Your task to perform on an android device: Search for seafood restaurants on Google Maps Image 0: 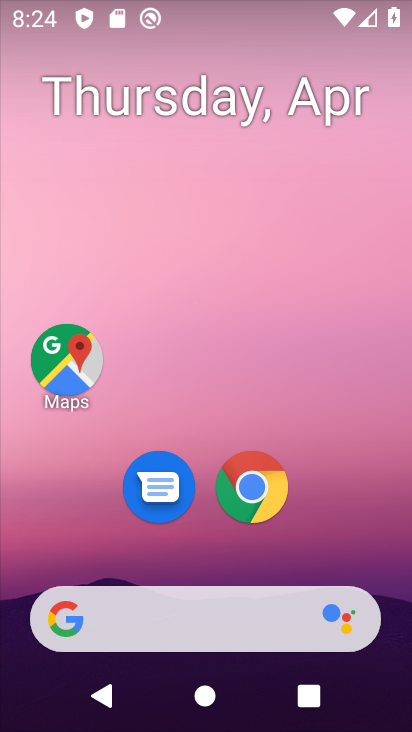
Step 0: click (88, 345)
Your task to perform on an android device: Search for seafood restaurants on Google Maps Image 1: 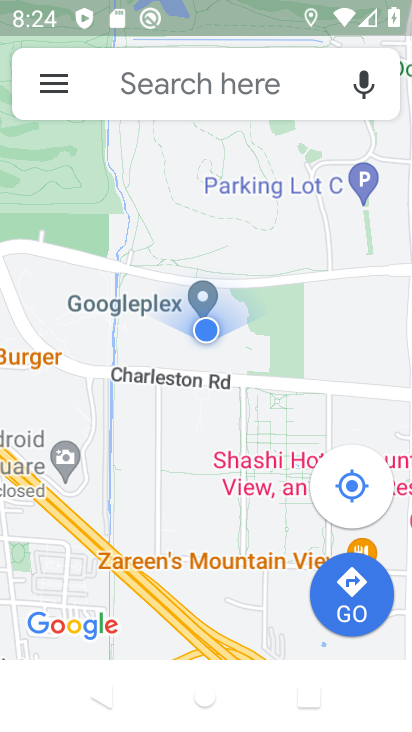
Step 1: click (186, 89)
Your task to perform on an android device: Search for seafood restaurants on Google Maps Image 2: 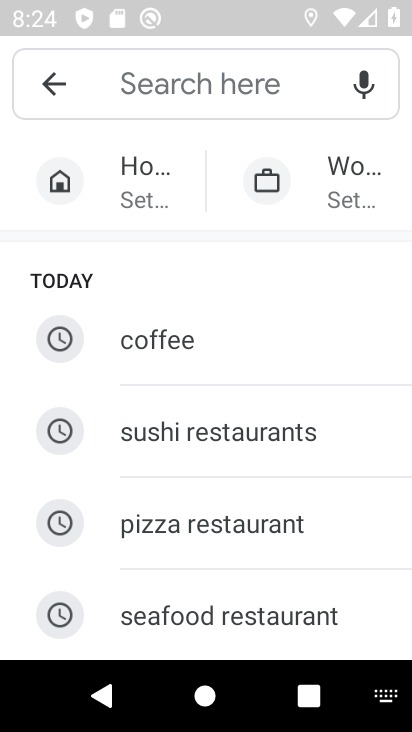
Step 2: type "seafood restaurants"
Your task to perform on an android device: Search for seafood restaurants on Google Maps Image 3: 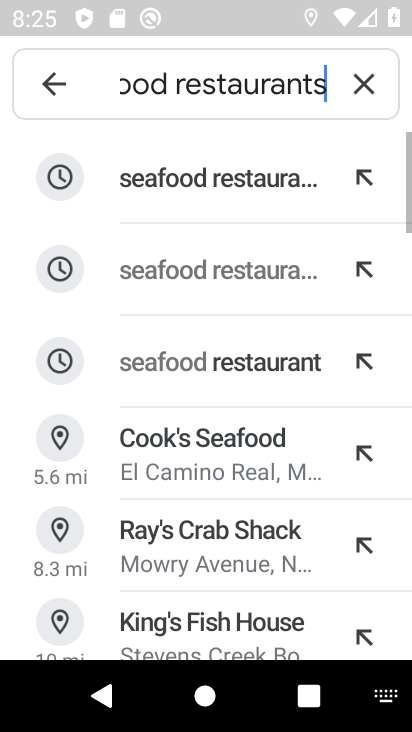
Step 3: click (161, 187)
Your task to perform on an android device: Search for seafood restaurants on Google Maps Image 4: 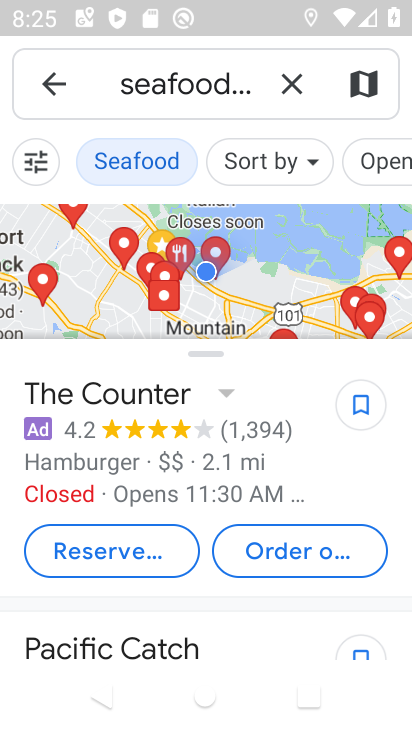
Step 4: task complete